Your task to perform on an android device: Open the web browser Image 0: 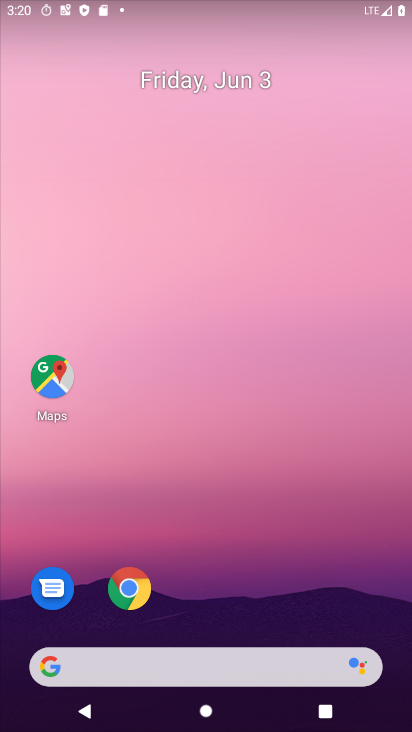
Step 0: drag from (13, 645) to (408, 64)
Your task to perform on an android device: Open the web browser Image 1: 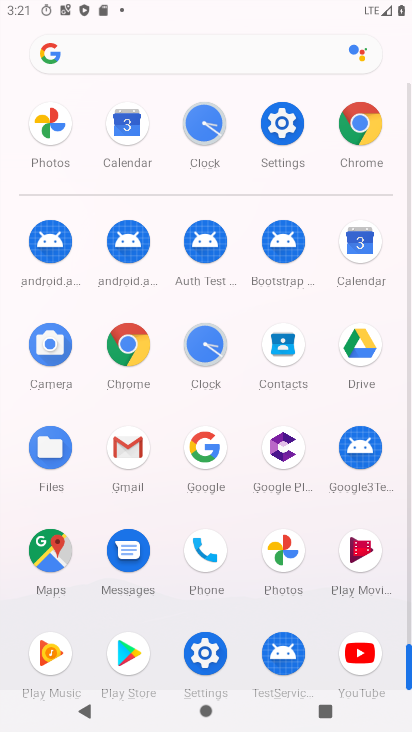
Step 1: click (292, 143)
Your task to perform on an android device: Open the web browser Image 2: 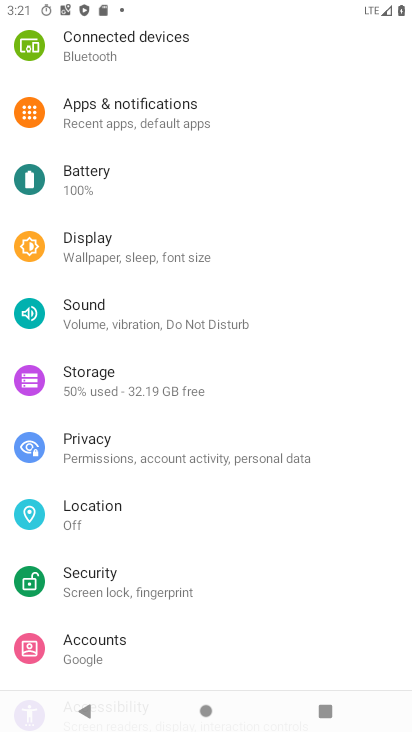
Step 2: task complete